Your task to perform on an android device: open chrome and create a bookmark for the current page Image 0: 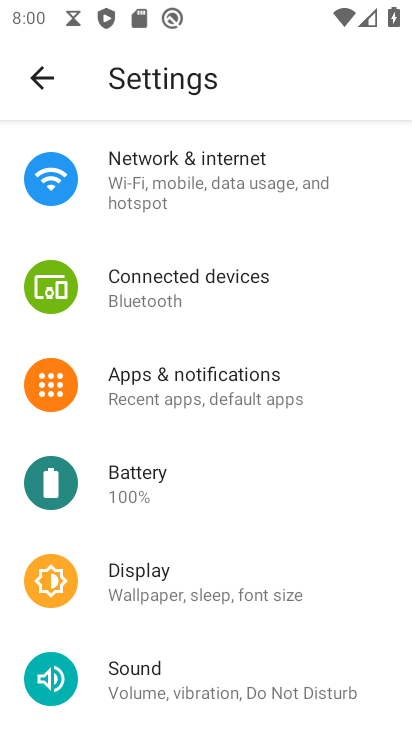
Step 0: press back button
Your task to perform on an android device: open chrome and create a bookmark for the current page Image 1: 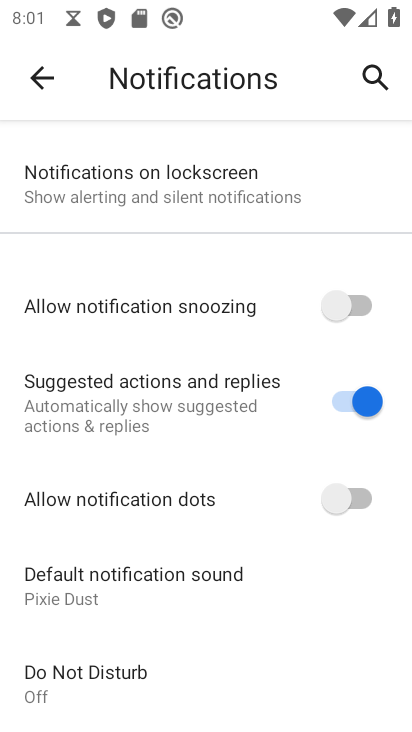
Step 1: press back button
Your task to perform on an android device: open chrome and create a bookmark for the current page Image 2: 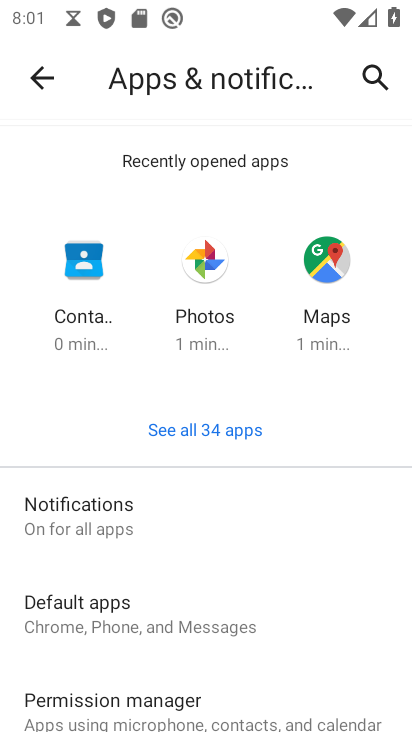
Step 2: press back button
Your task to perform on an android device: open chrome and create a bookmark for the current page Image 3: 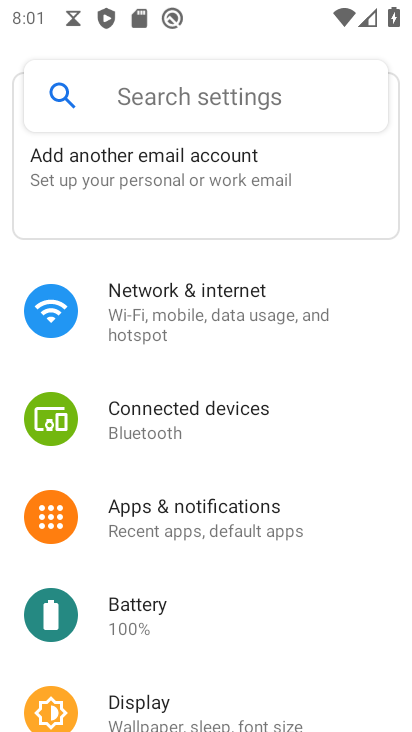
Step 3: press back button
Your task to perform on an android device: open chrome and create a bookmark for the current page Image 4: 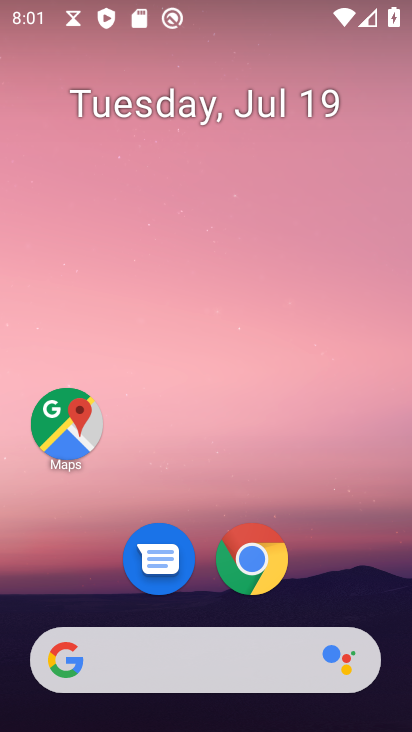
Step 4: click (248, 564)
Your task to perform on an android device: open chrome and create a bookmark for the current page Image 5: 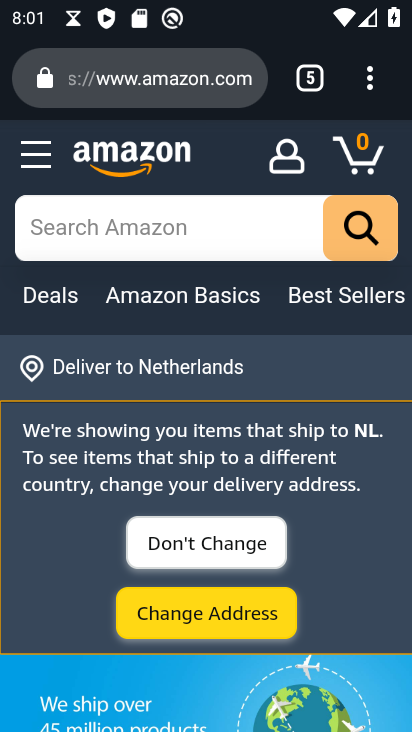
Step 5: task complete